Your task to perform on an android device: Open Google Maps and go to "Timeline" Image 0: 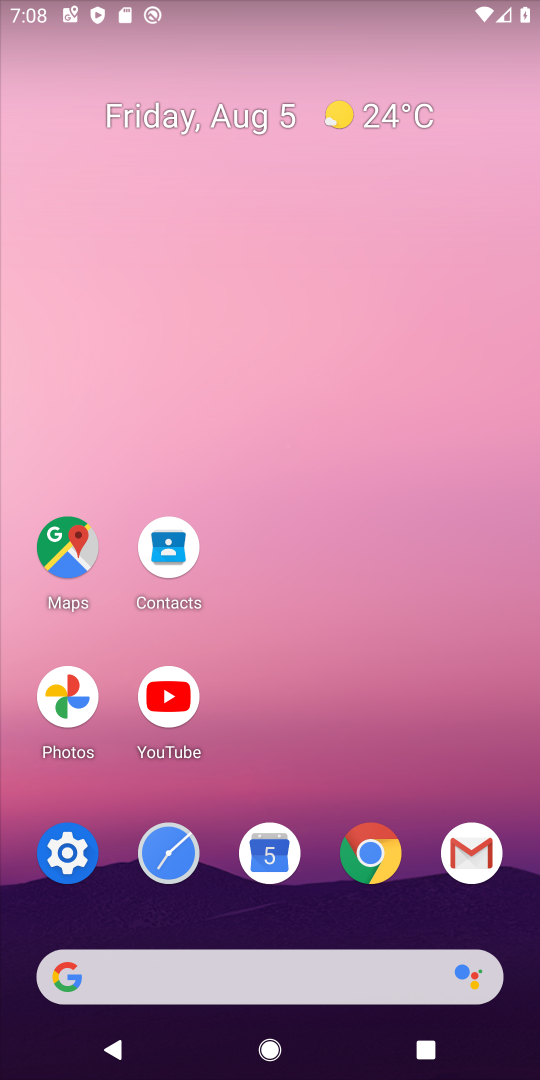
Step 0: click (70, 550)
Your task to perform on an android device: Open Google Maps and go to "Timeline" Image 1: 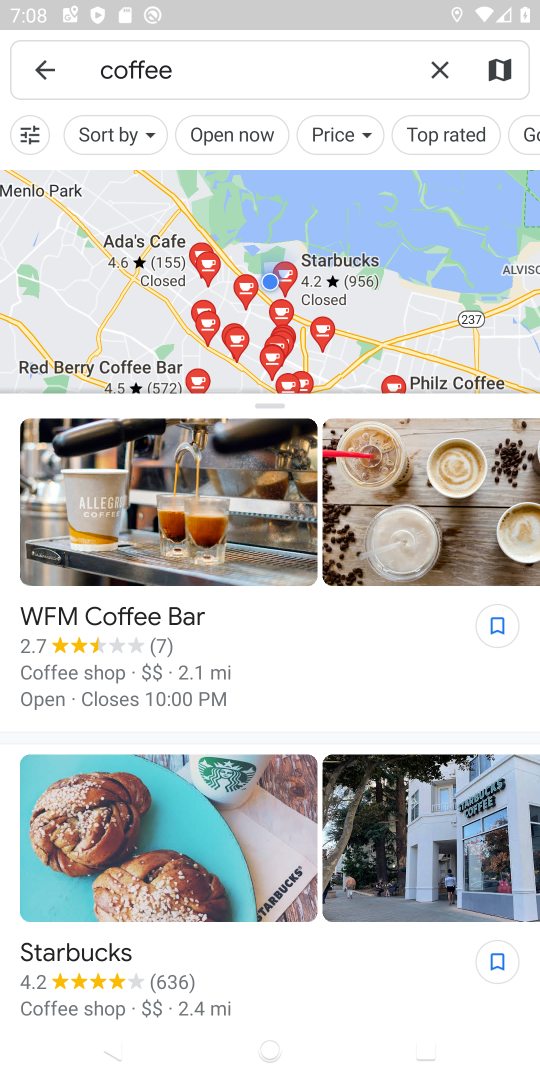
Step 1: click (41, 68)
Your task to perform on an android device: Open Google Maps and go to "Timeline" Image 2: 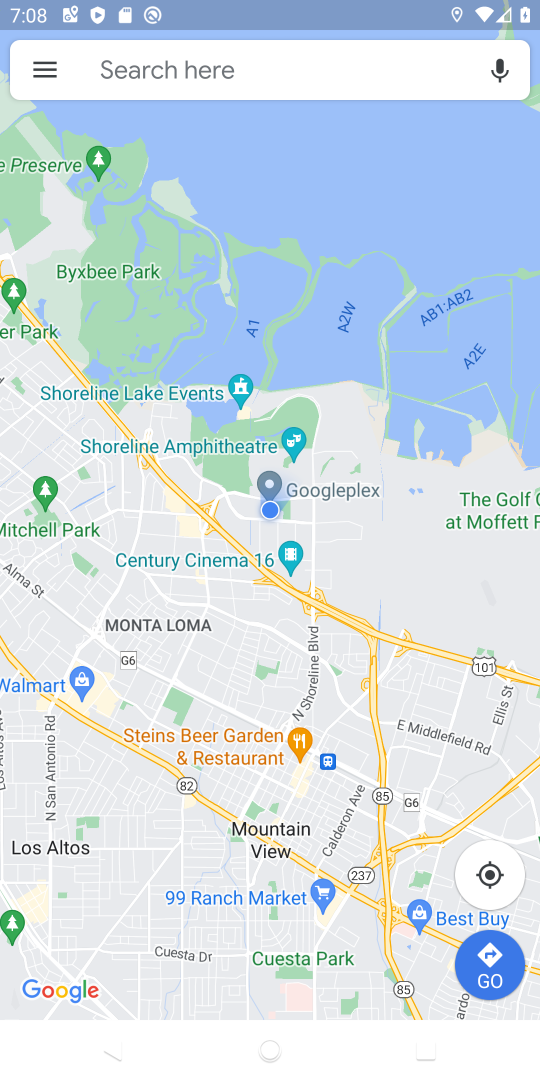
Step 2: click (46, 67)
Your task to perform on an android device: Open Google Maps and go to "Timeline" Image 3: 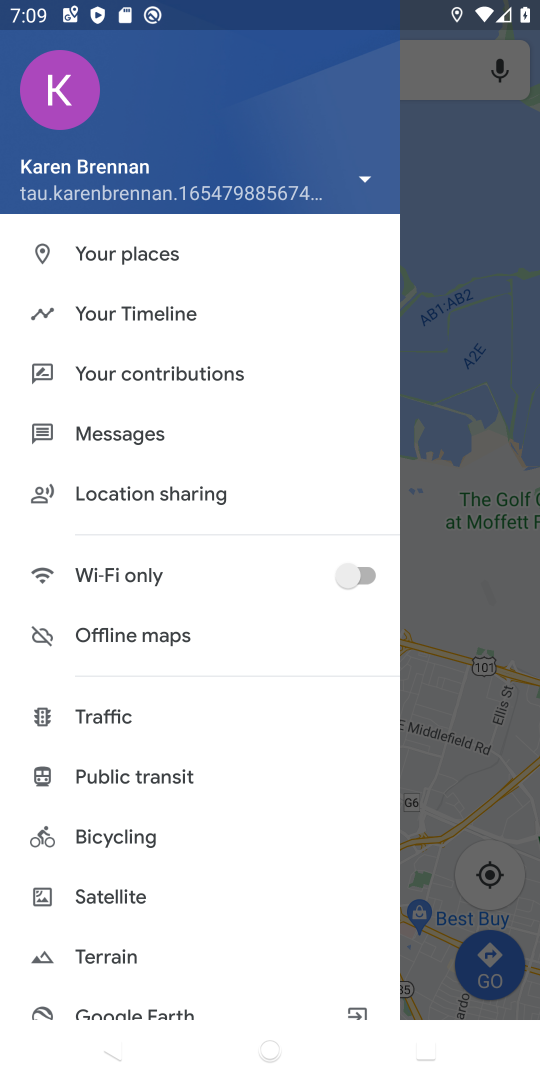
Step 3: click (133, 317)
Your task to perform on an android device: Open Google Maps and go to "Timeline" Image 4: 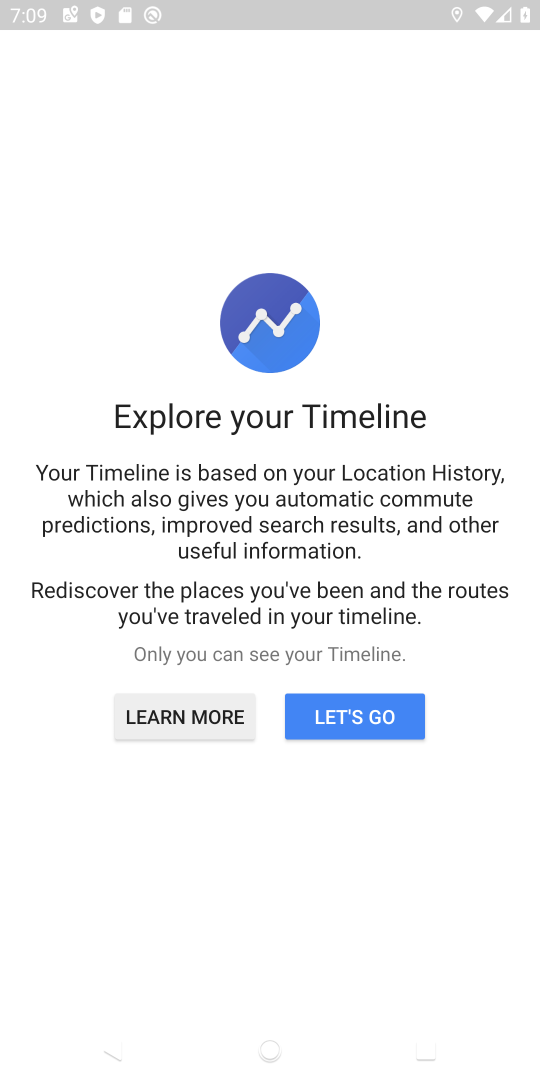
Step 4: click (362, 724)
Your task to perform on an android device: Open Google Maps and go to "Timeline" Image 5: 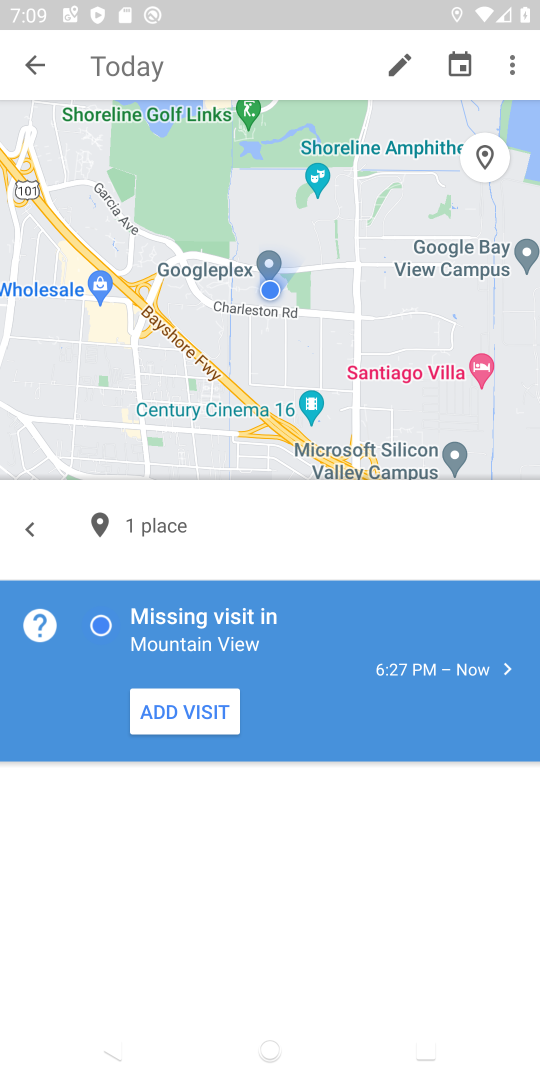
Step 5: task complete